Your task to perform on an android device: Go to Reddit.com Image 0: 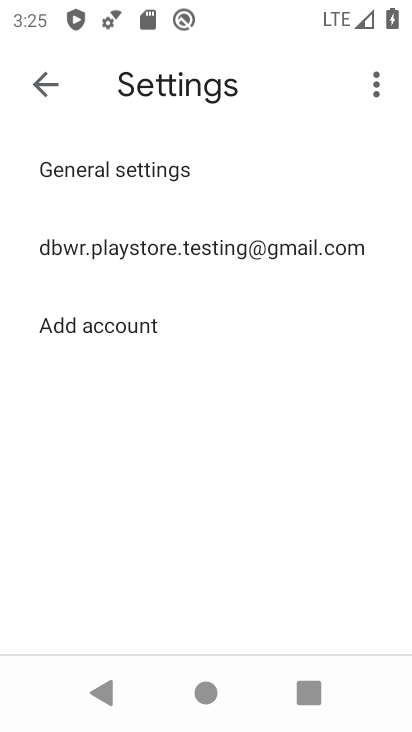
Step 0: drag from (375, 522) to (349, 433)
Your task to perform on an android device: Go to Reddit.com Image 1: 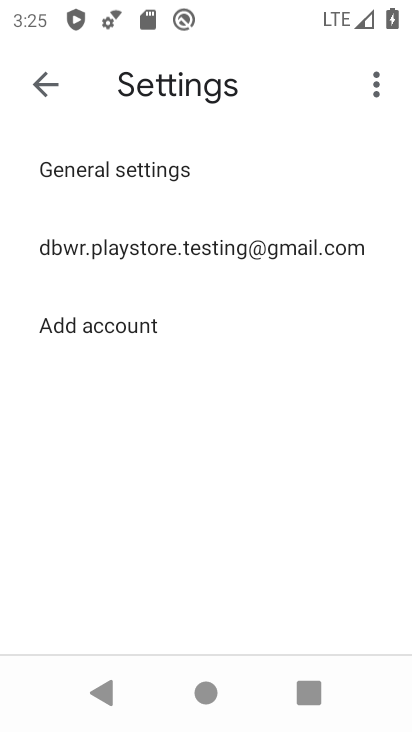
Step 1: press back button
Your task to perform on an android device: Go to Reddit.com Image 2: 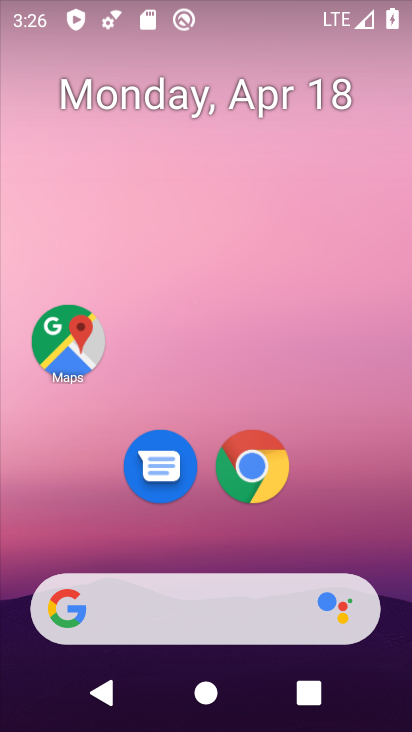
Step 2: click (374, 521)
Your task to perform on an android device: Go to Reddit.com Image 3: 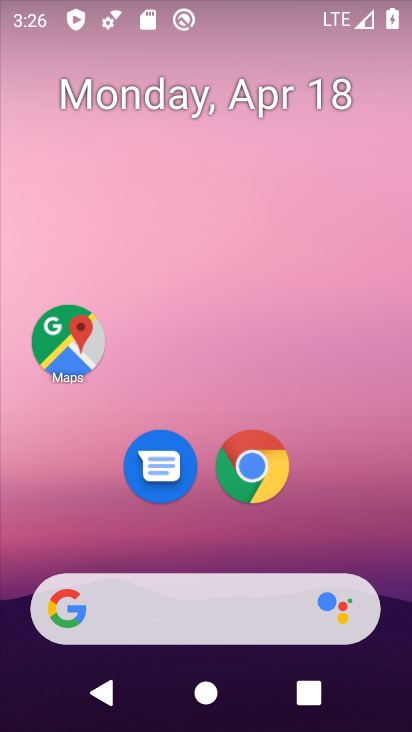
Step 3: click (272, 470)
Your task to perform on an android device: Go to Reddit.com Image 4: 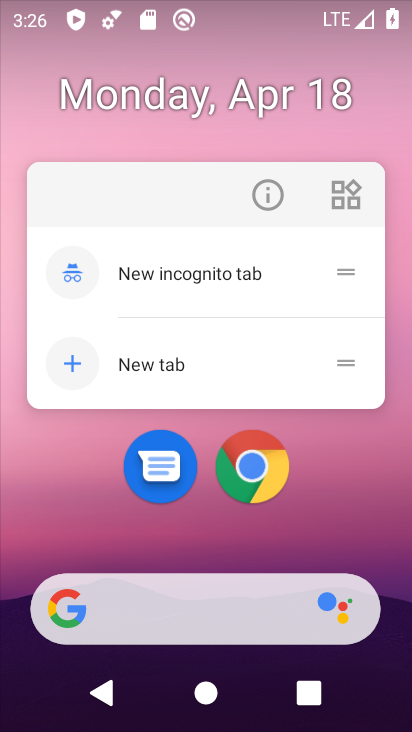
Step 4: click (272, 470)
Your task to perform on an android device: Go to Reddit.com Image 5: 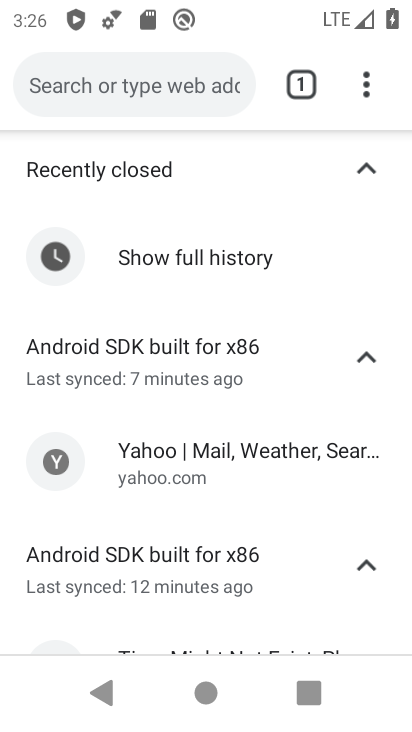
Step 5: click (171, 89)
Your task to perform on an android device: Go to Reddit.com Image 6: 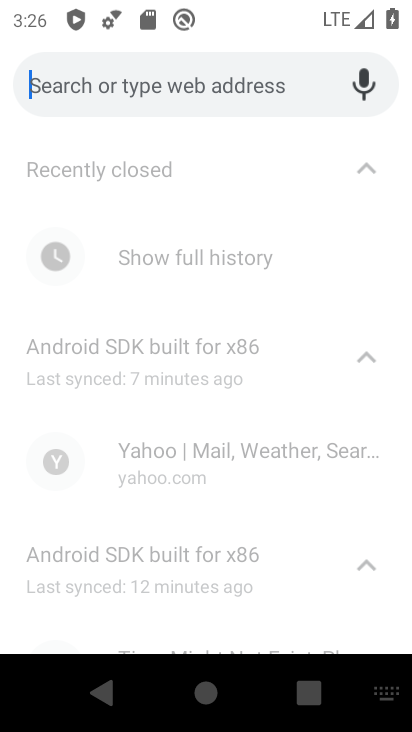
Step 6: type "reddit.com"
Your task to perform on an android device: Go to Reddit.com Image 7: 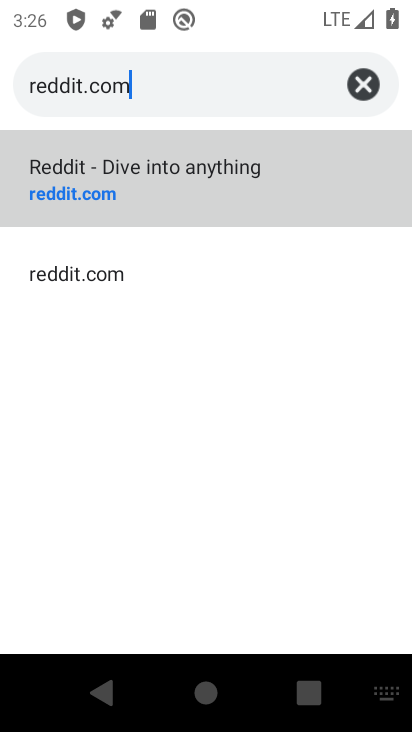
Step 7: click (189, 156)
Your task to perform on an android device: Go to Reddit.com Image 8: 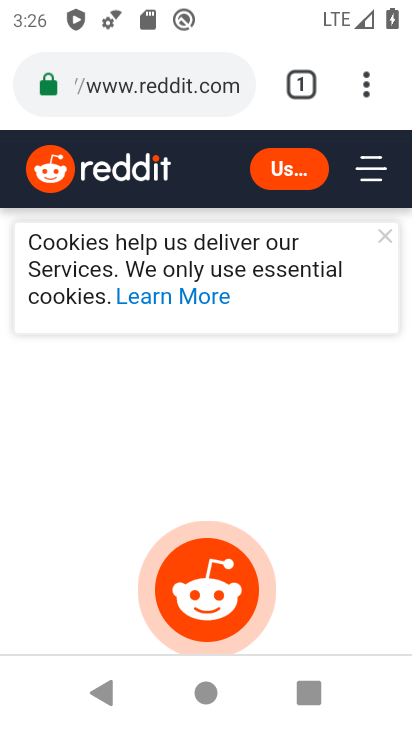
Step 8: task complete